Your task to perform on an android device: change notifications settings Image 0: 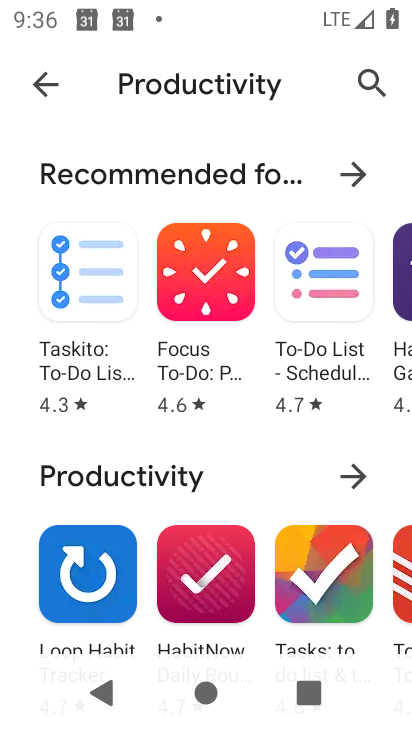
Step 0: press home button
Your task to perform on an android device: change notifications settings Image 1: 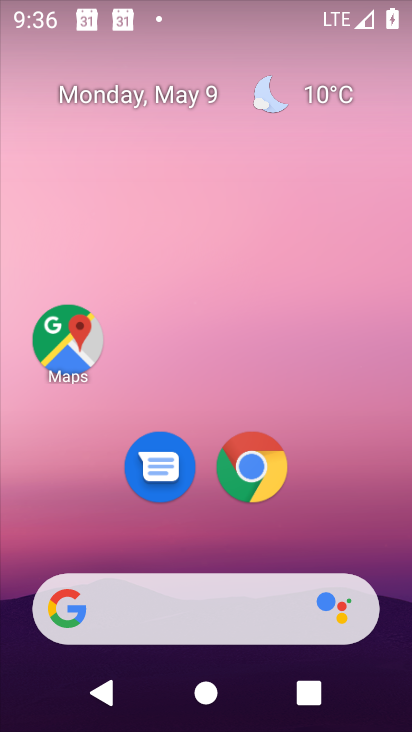
Step 1: drag from (362, 554) to (353, 3)
Your task to perform on an android device: change notifications settings Image 2: 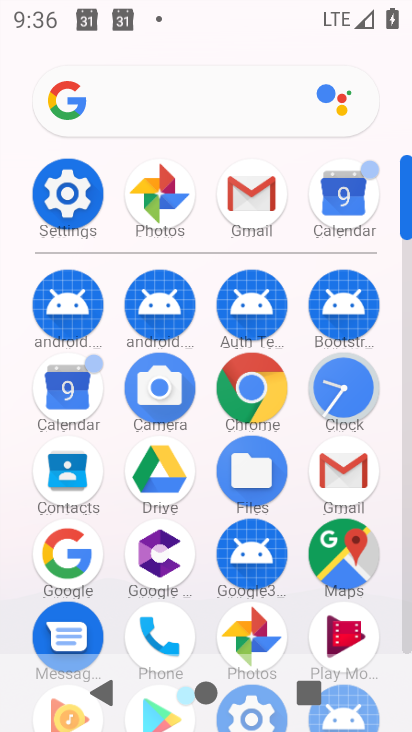
Step 2: click (71, 203)
Your task to perform on an android device: change notifications settings Image 3: 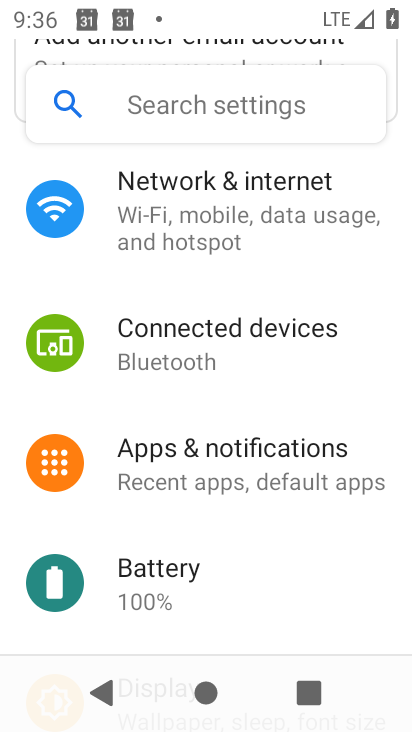
Step 3: click (223, 446)
Your task to perform on an android device: change notifications settings Image 4: 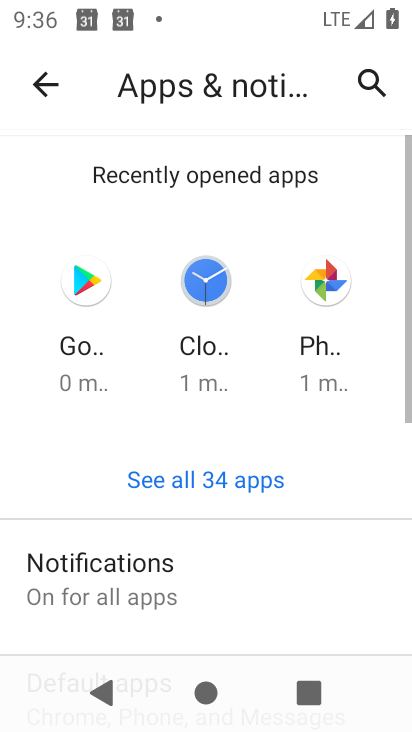
Step 4: click (96, 569)
Your task to perform on an android device: change notifications settings Image 5: 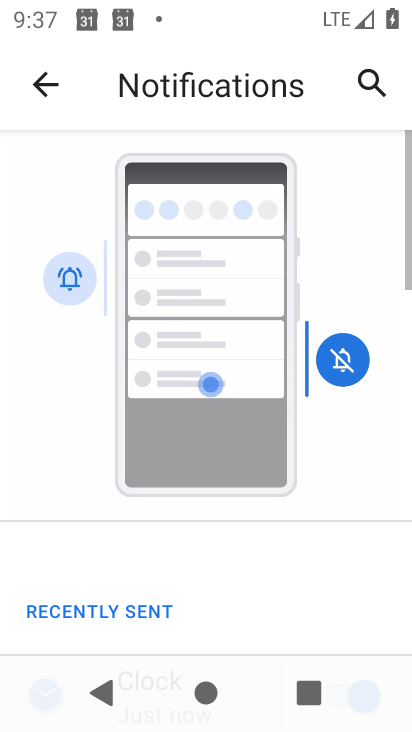
Step 5: drag from (212, 543) to (239, 184)
Your task to perform on an android device: change notifications settings Image 6: 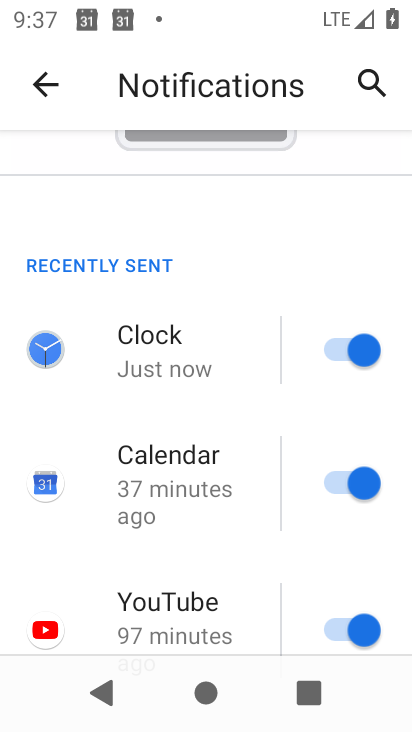
Step 6: drag from (198, 486) to (235, 99)
Your task to perform on an android device: change notifications settings Image 7: 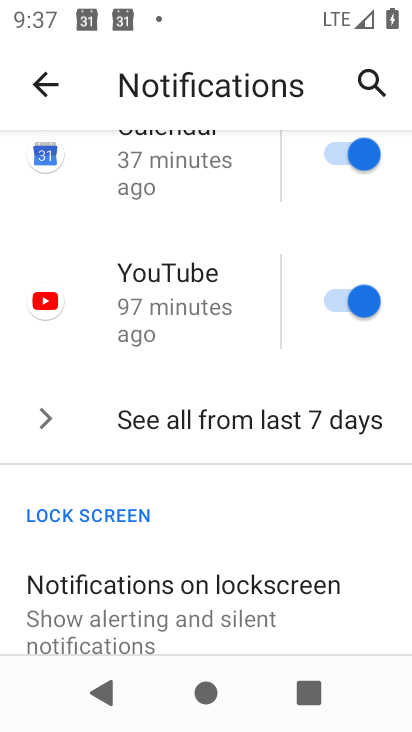
Step 7: drag from (189, 500) to (221, 173)
Your task to perform on an android device: change notifications settings Image 8: 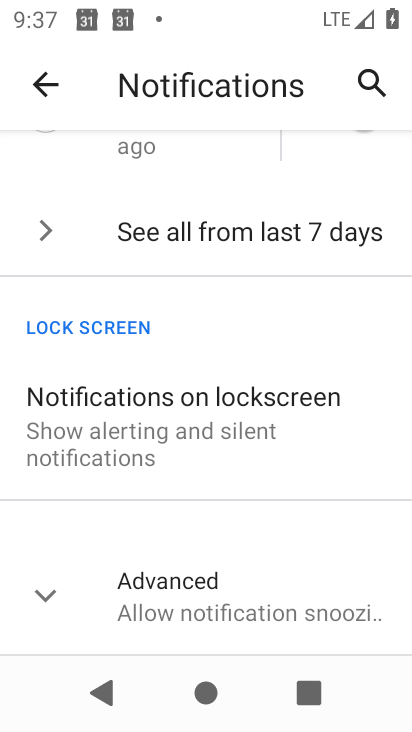
Step 8: click (173, 231)
Your task to perform on an android device: change notifications settings Image 9: 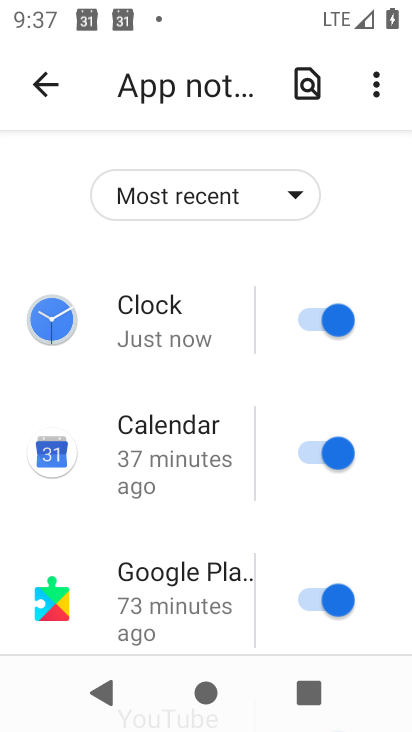
Step 9: click (305, 197)
Your task to perform on an android device: change notifications settings Image 10: 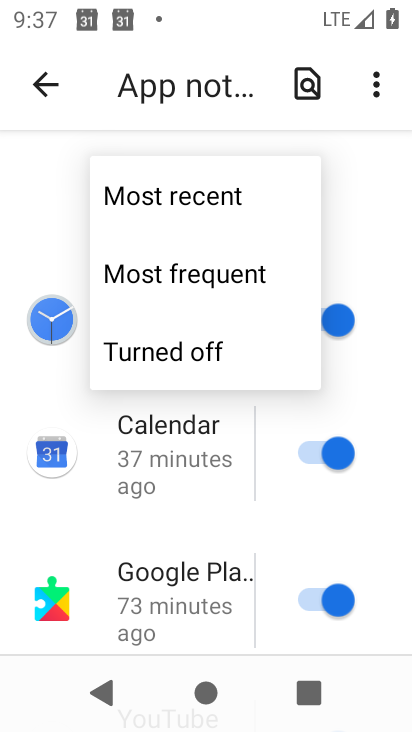
Step 10: click (231, 274)
Your task to perform on an android device: change notifications settings Image 11: 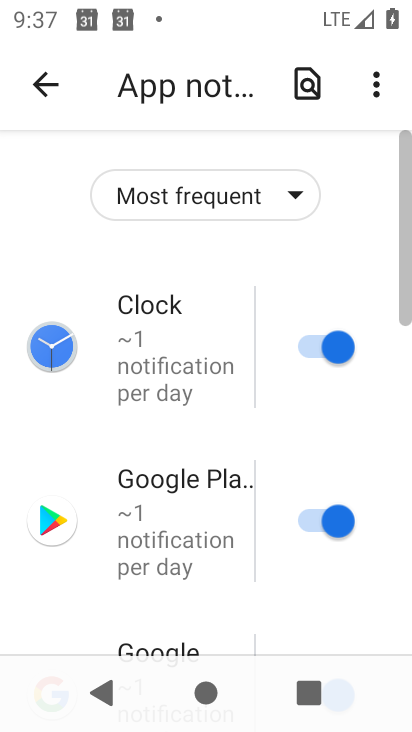
Step 11: task complete